Your task to perform on an android device: change timer sound Image 0: 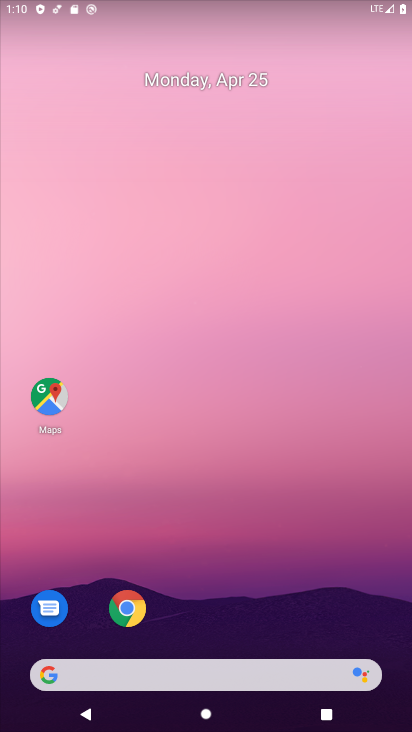
Step 0: drag from (299, 652) to (313, 201)
Your task to perform on an android device: change timer sound Image 1: 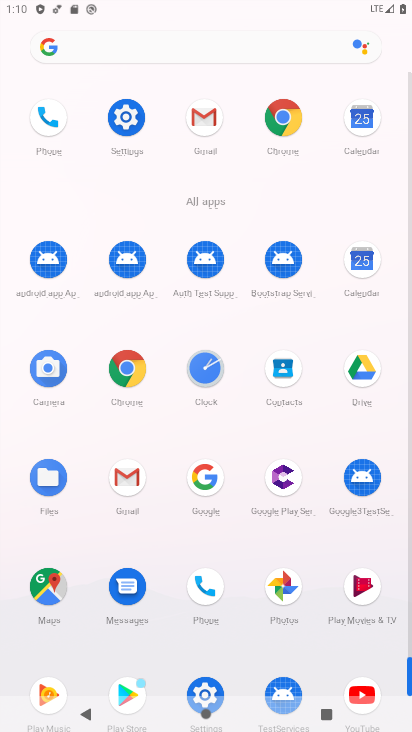
Step 1: drag from (245, 544) to (269, 263)
Your task to perform on an android device: change timer sound Image 2: 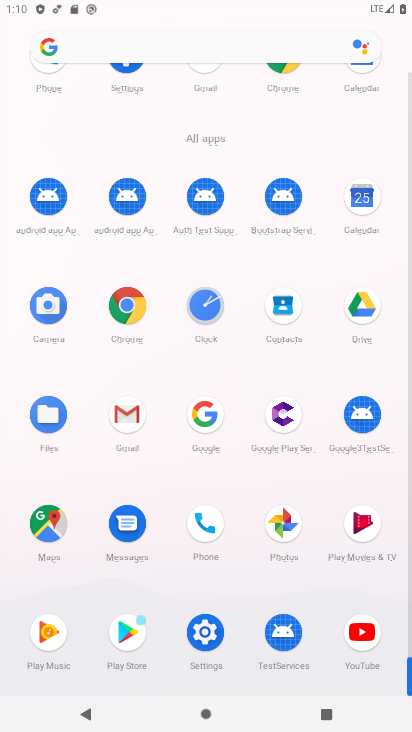
Step 2: drag from (228, 584) to (275, 253)
Your task to perform on an android device: change timer sound Image 3: 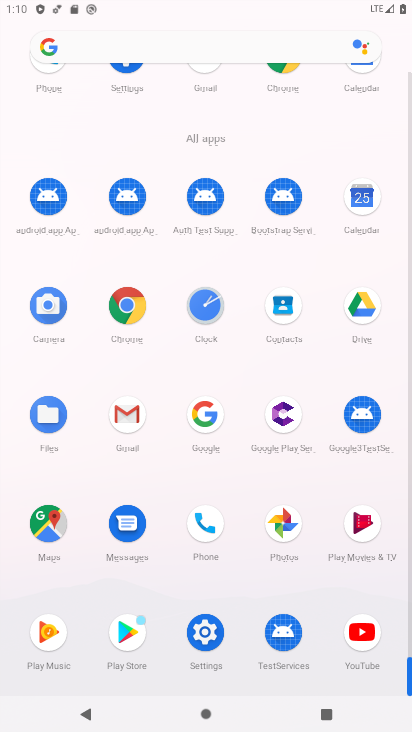
Step 3: drag from (270, 269) to (264, 431)
Your task to perform on an android device: change timer sound Image 4: 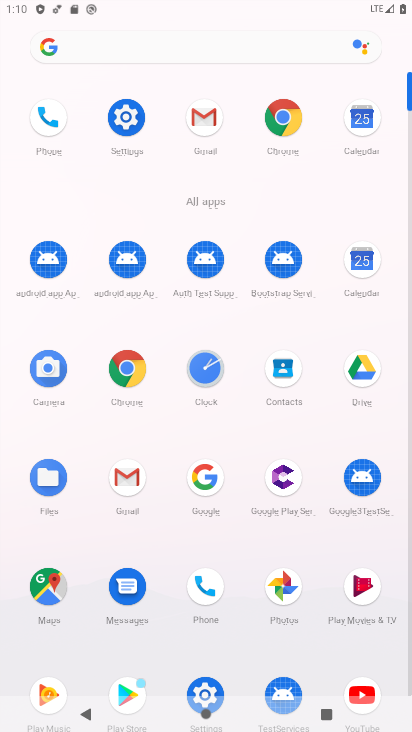
Step 4: click (205, 374)
Your task to perform on an android device: change timer sound Image 5: 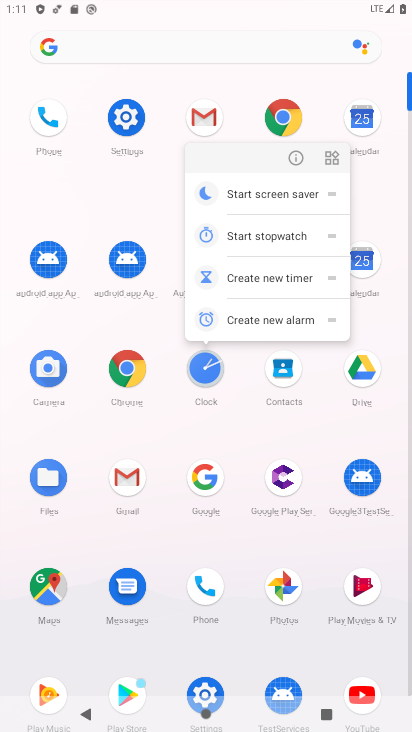
Step 5: click (205, 374)
Your task to perform on an android device: change timer sound Image 6: 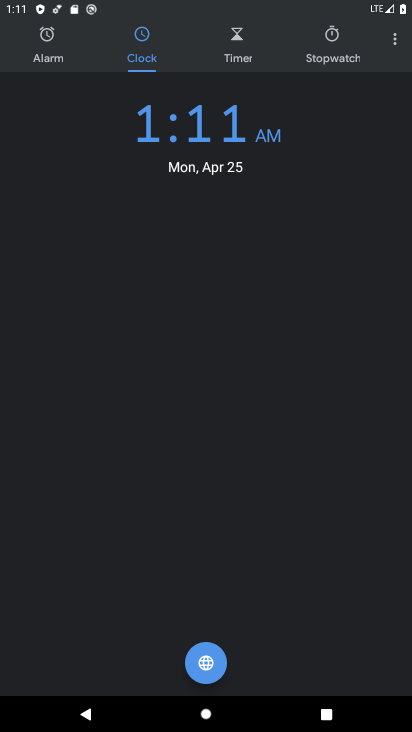
Step 6: click (397, 34)
Your task to perform on an android device: change timer sound Image 7: 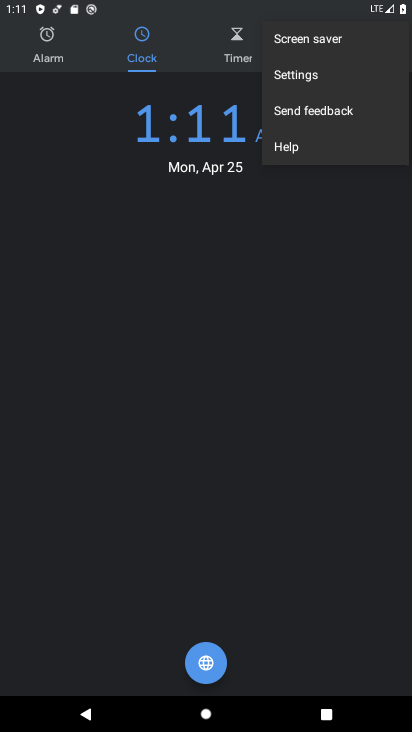
Step 7: click (322, 81)
Your task to perform on an android device: change timer sound Image 8: 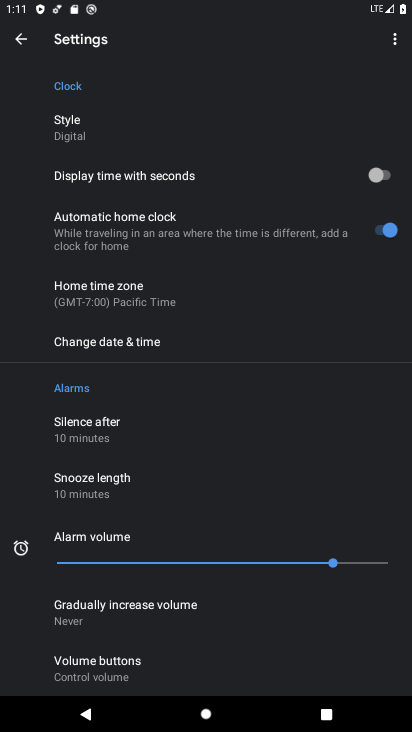
Step 8: drag from (139, 580) to (159, 217)
Your task to perform on an android device: change timer sound Image 9: 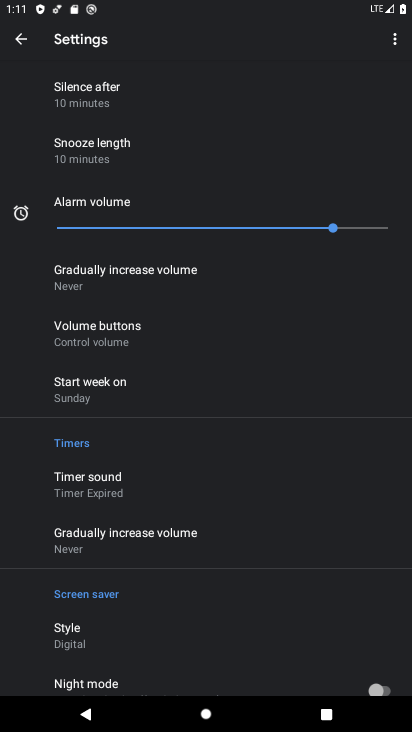
Step 9: drag from (113, 618) to (166, 367)
Your task to perform on an android device: change timer sound Image 10: 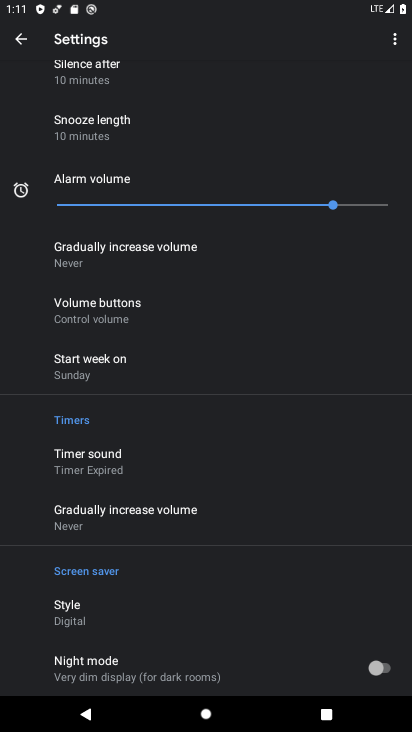
Step 10: click (120, 449)
Your task to perform on an android device: change timer sound Image 11: 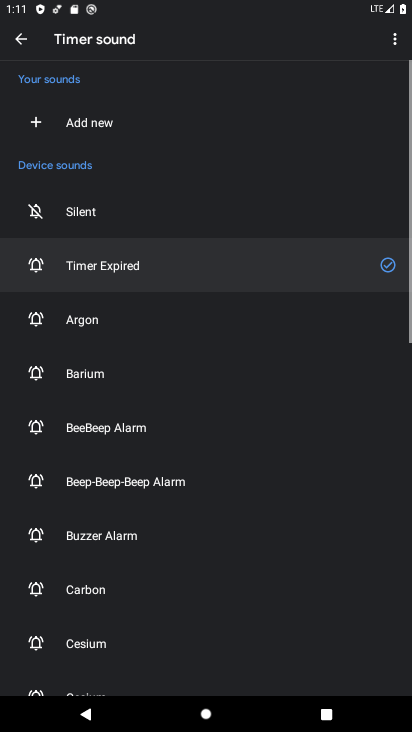
Step 11: click (73, 323)
Your task to perform on an android device: change timer sound Image 12: 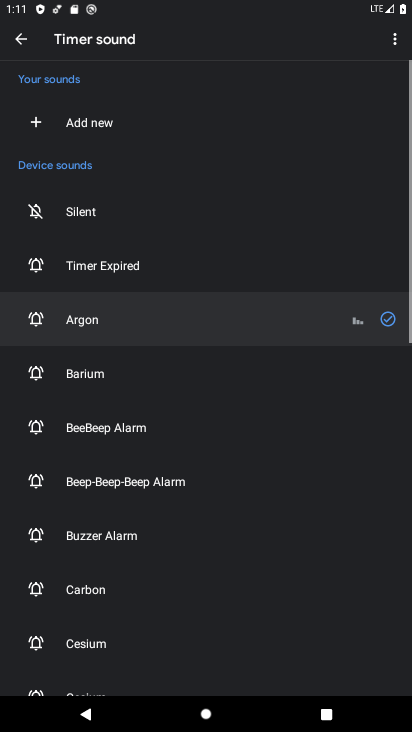
Step 12: task complete